Your task to perform on an android device: What's on my calendar today? Image 0: 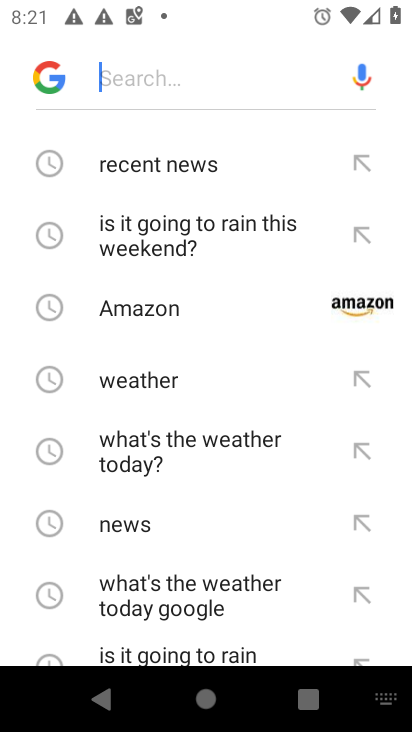
Step 0: press back button
Your task to perform on an android device: What's on my calendar today? Image 1: 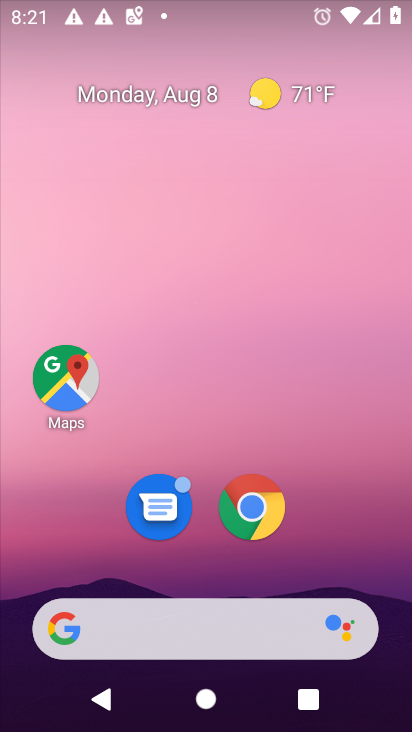
Step 1: drag from (215, 542) to (98, 65)
Your task to perform on an android device: What's on my calendar today? Image 2: 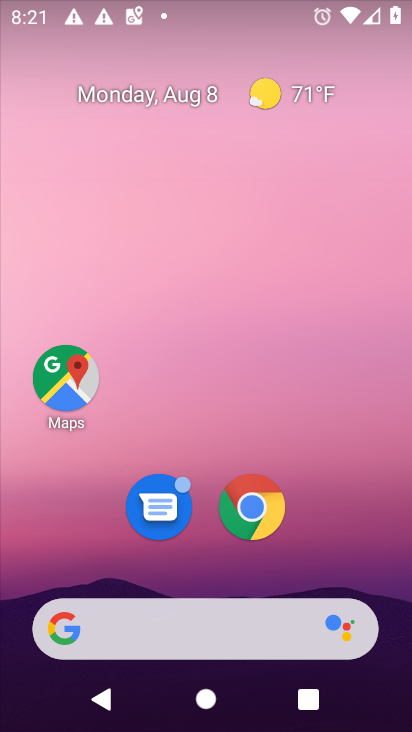
Step 2: drag from (253, 559) to (271, 0)
Your task to perform on an android device: What's on my calendar today? Image 3: 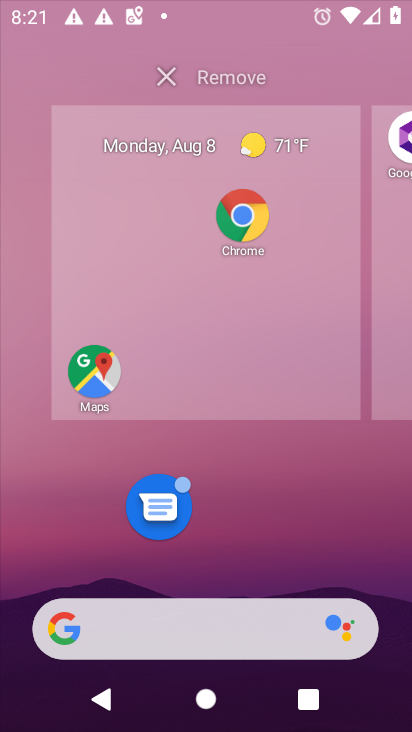
Step 3: click (204, 444)
Your task to perform on an android device: What's on my calendar today? Image 4: 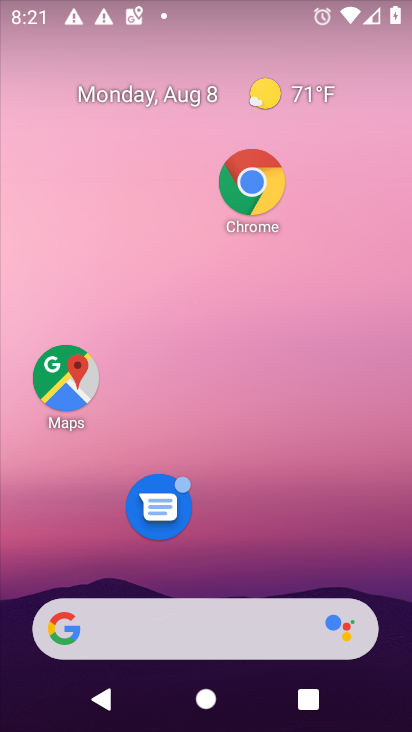
Step 4: drag from (231, 590) to (357, 60)
Your task to perform on an android device: What's on my calendar today? Image 5: 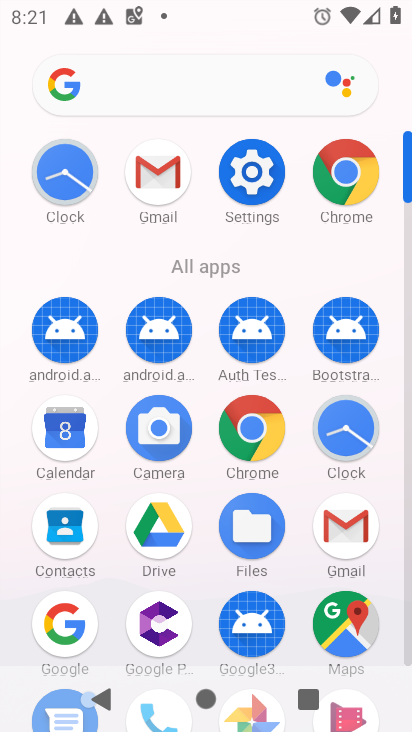
Step 5: click (60, 424)
Your task to perform on an android device: What's on my calendar today? Image 6: 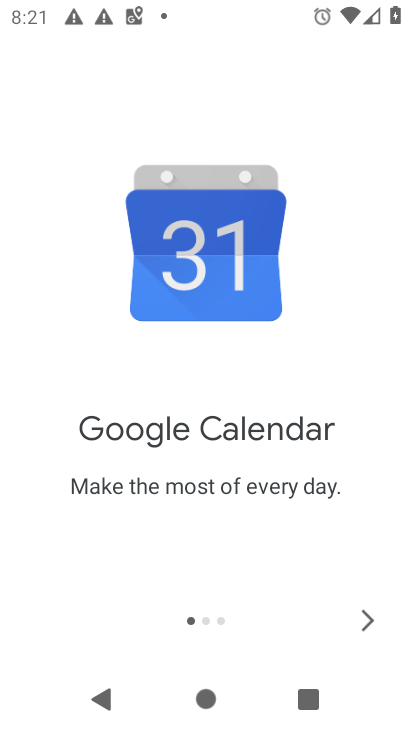
Step 6: click (365, 626)
Your task to perform on an android device: What's on my calendar today? Image 7: 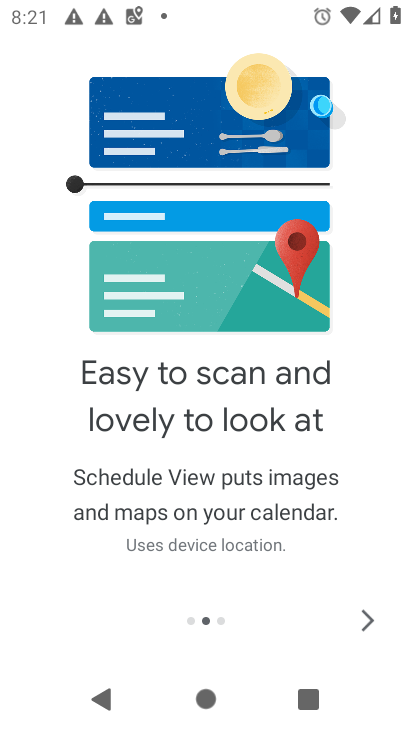
Step 7: click (365, 626)
Your task to perform on an android device: What's on my calendar today? Image 8: 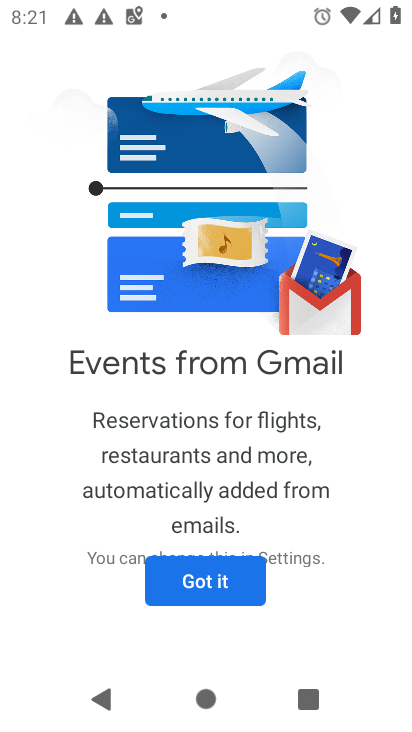
Step 8: click (195, 575)
Your task to perform on an android device: What's on my calendar today? Image 9: 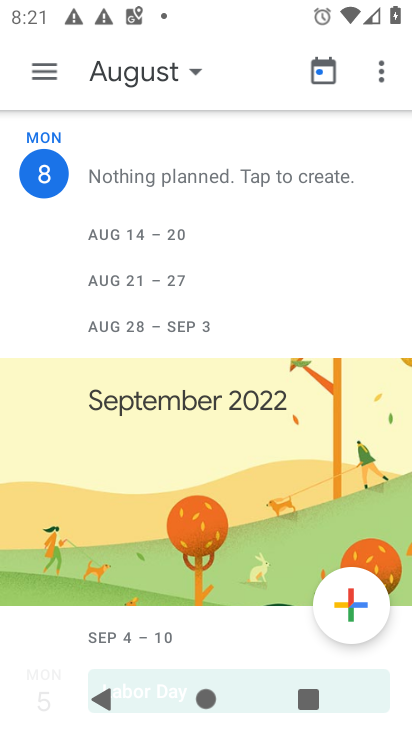
Step 9: click (62, 176)
Your task to perform on an android device: What's on my calendar today? Image 10: 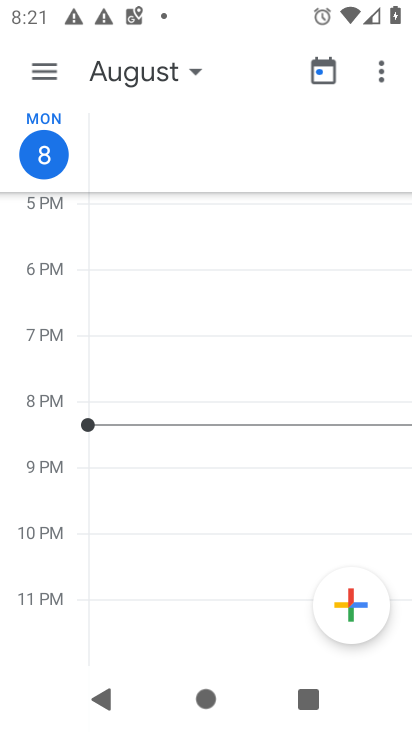
Step 10: task complete